Your task to perform on an android device: Go to Amazon Image 0: 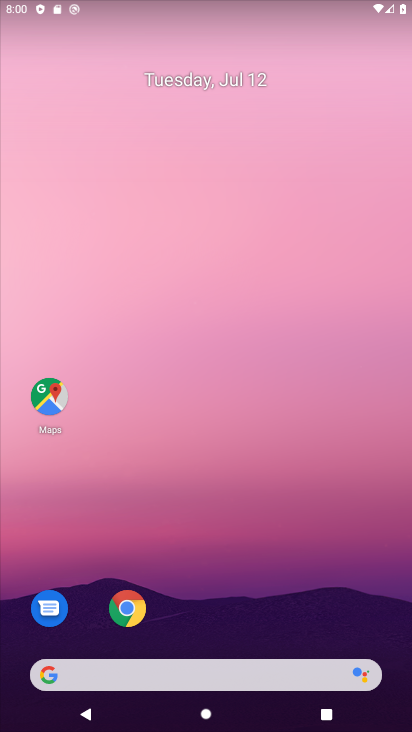
Step 0: click (126, 608)
Your task to perform on an android device: Go to Amazon Image 1: 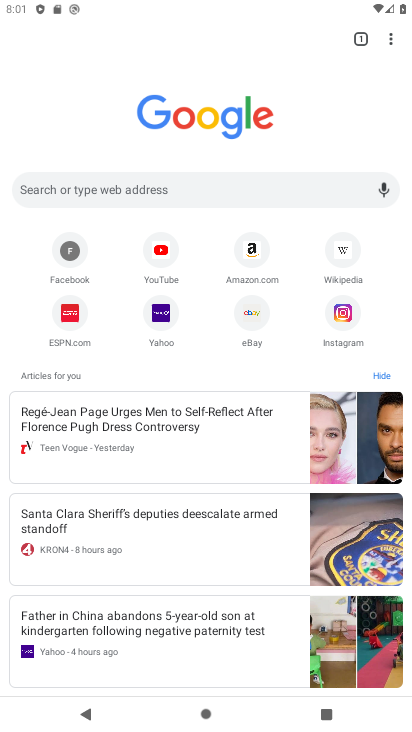
Step 1: click (263, 243)
Your task to perform on an android device: Go to Amazon Image 2: 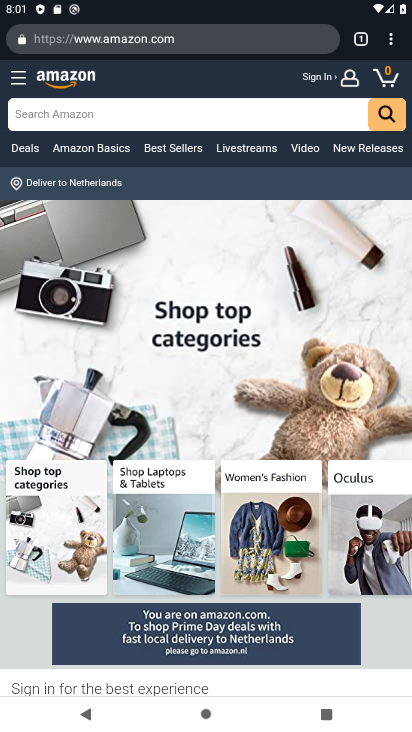
Step 2: task complete